Your task to perform on an android device: turn on priority inbox in the gmail app Image 0: 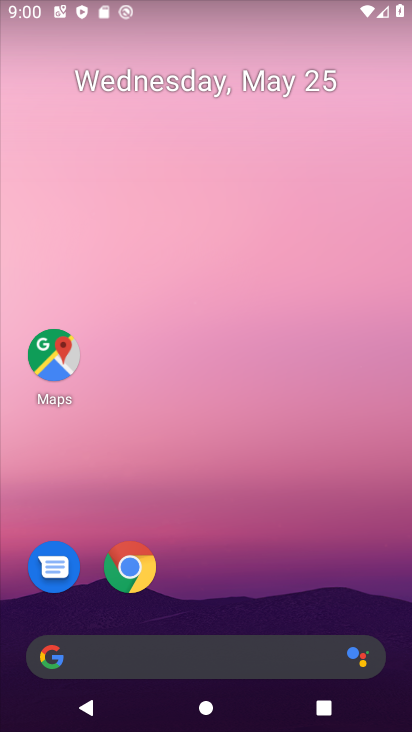
Step 0: drag from (270, 577) to (308, 51)
Your task to perform on an android device: turn on priority inbox in the gmail app Image 1: 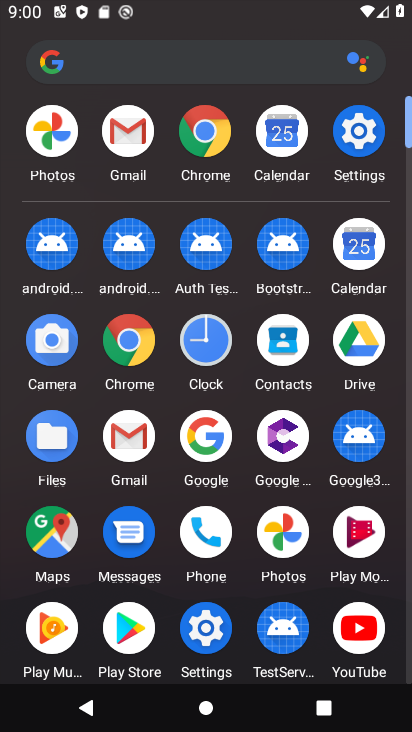
Step 1: click (125, 153)
Your task to perform on an android device: turn on priority inbox in the gmail app Image 2: 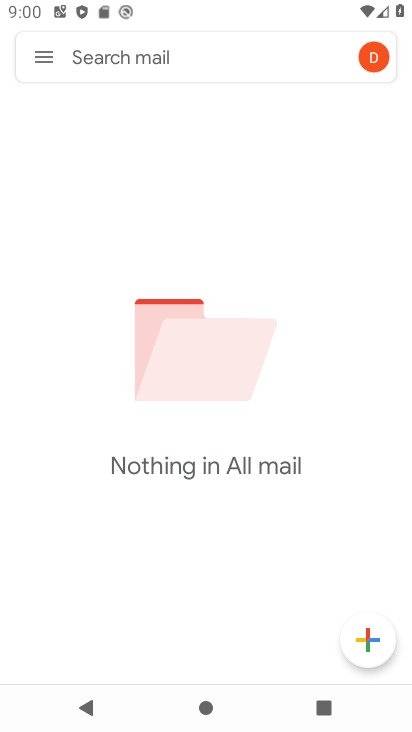
Step 2: click (13, 56)
Your task to perform on an android device: turn on priority inbox in the gmail app Image 3: 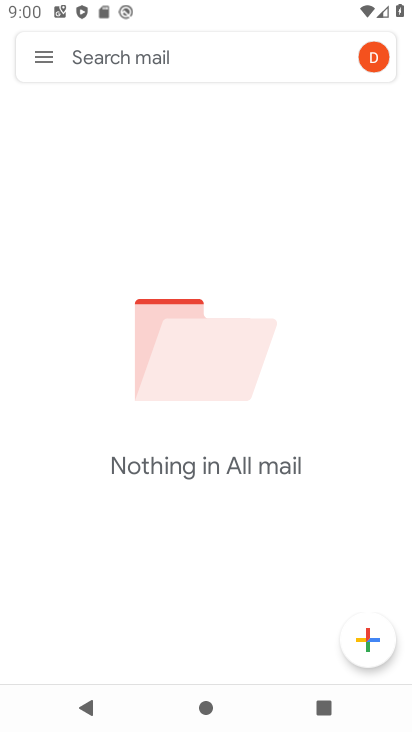
Step 3: click (46, 58)
Your task to perform on an android device: turn on priority inbox in the gmail app Image 4: 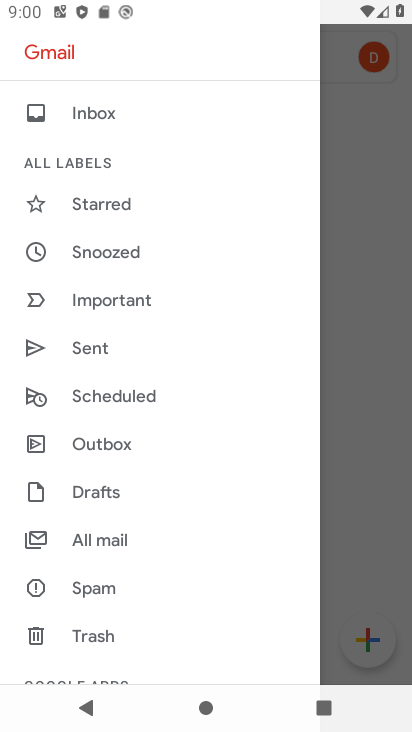
Step 4: task complete